Your task to perform on an android device: turn off location history Image 0: 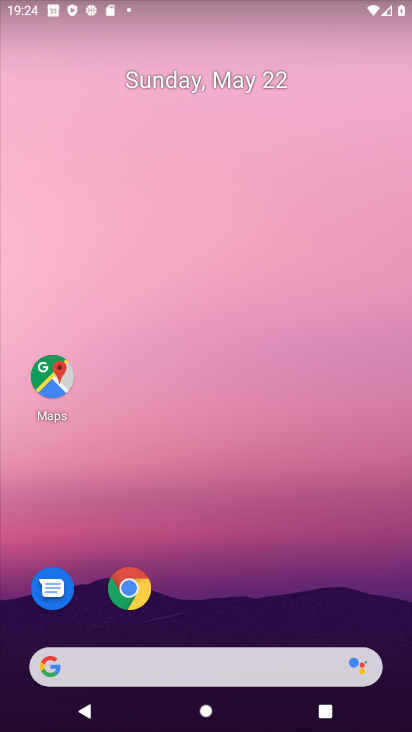
Step 0: click (52, 377)
Your task to perform on an android device: turn off location history Image 1: 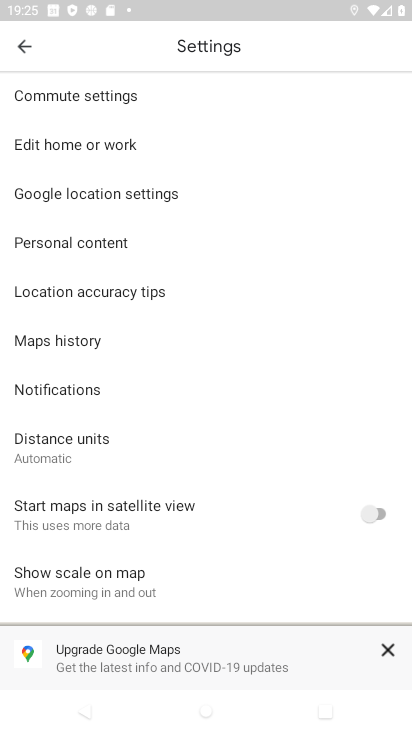
Step 1: click (24, 52)
Your task to perform on an android device: turn off location history Image 2: 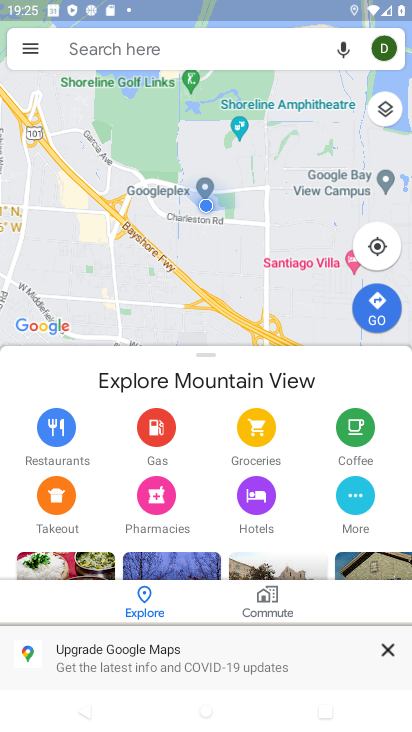
Step 2: click (30, 43)
Your task to perform on an android device: turn off location history Image 3: 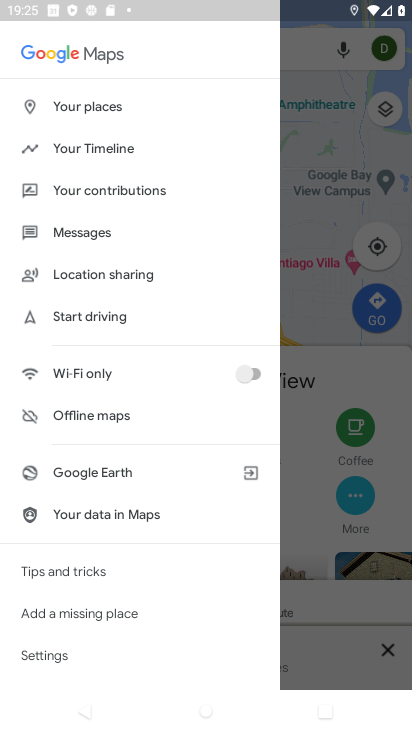
Step 3: click (101, 141)
Your task to perform on an android device: turn off location history Image 4: 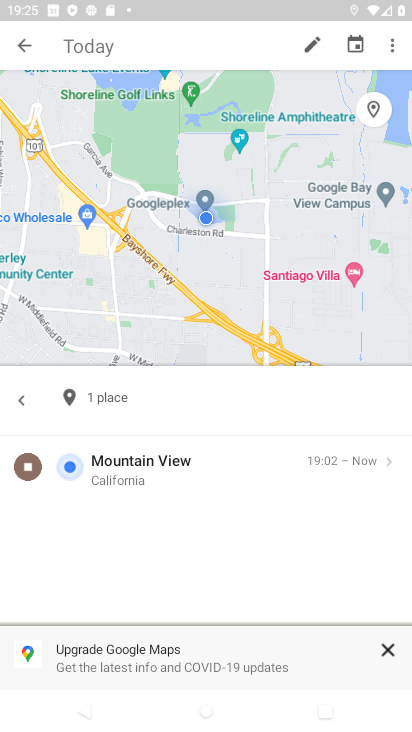
Step 4: click (394, 42)
Your task to perform on an android device: turn off location history Image 5: 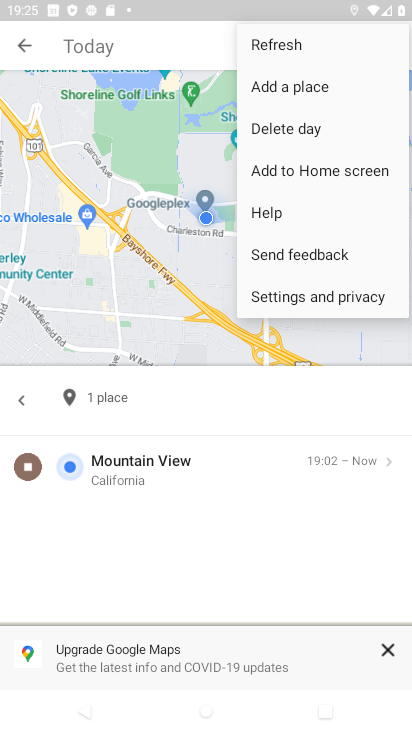
Step 5: click (322, 295)
Your task to perform on an android device: turn off location history Image 6: 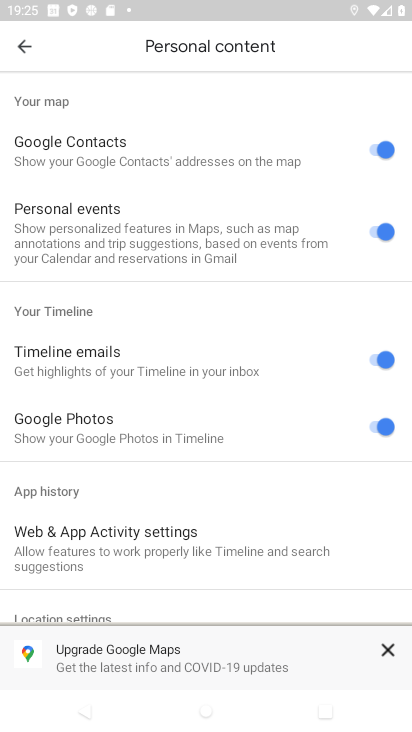
Step 6: drag from (267, 498) to (215, 48)
Your task to perform on an android device: turn off location history Image 7: 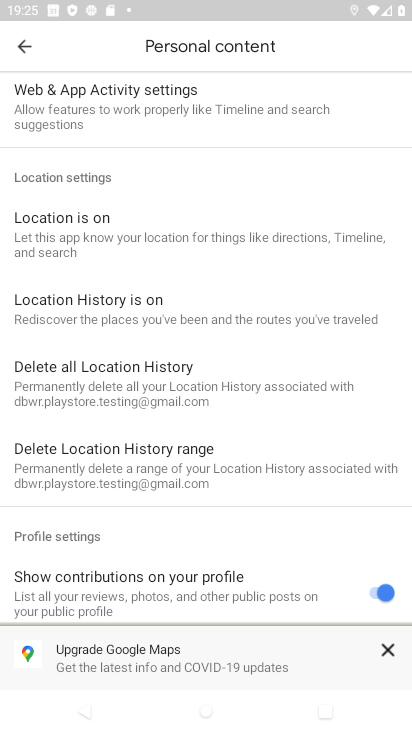
Step 7: click (90, 294)
Your task to perform on an android device: turn off location history Image 8: 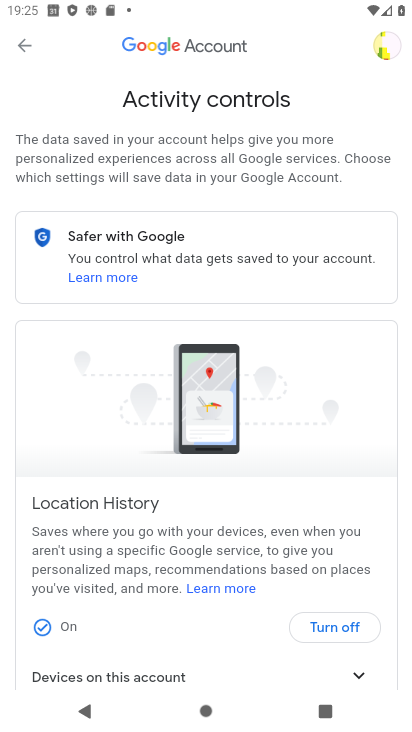
Step 8: click (335, 626)
Your task to perform on an android device: turn off location history Image 9: 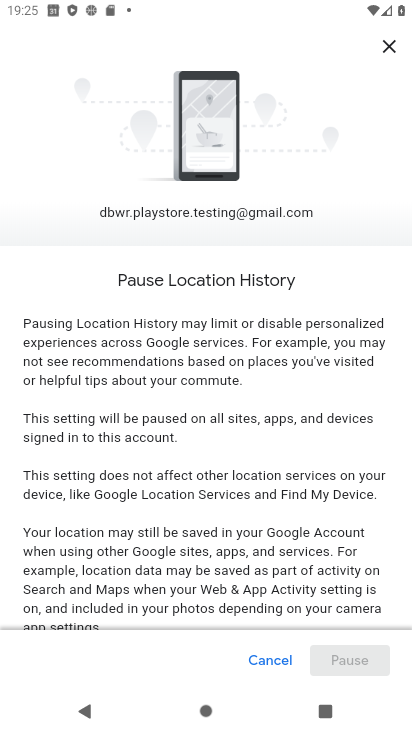
Step 9: drag from (260, 511) to (208, 40)
Your task to perform on an android device: turn off location history Image 10: 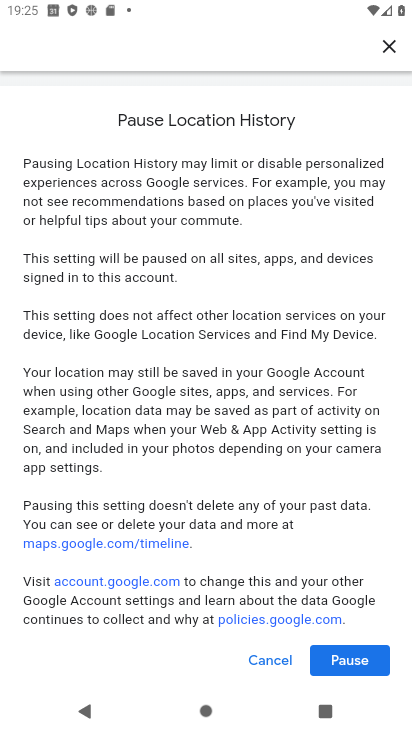
Step 10: click (355, 659)
Your task to perform on an android device: turn off location history Image 11: 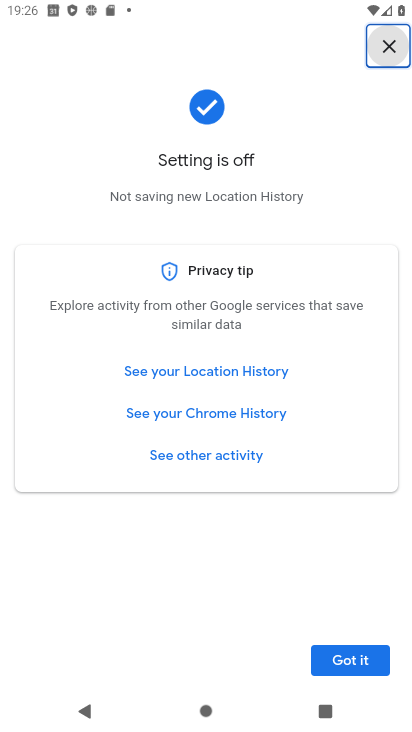
Step 11: click (355, 659)
Your task to perform on an android device: turn off location history Image 12: 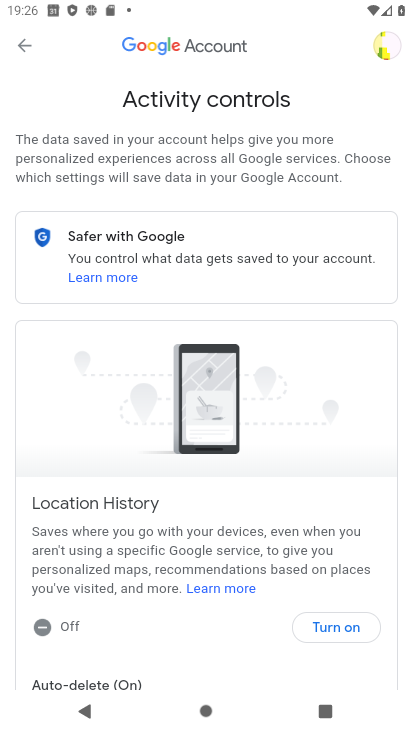
Step 12: task complete